Your task to perform on an android device: create a new album in the google photos Image 0: 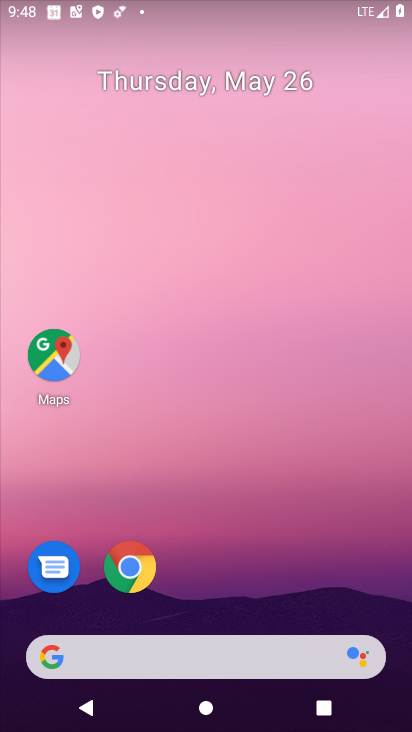
Step 0: drag from (164, 717) to (330, 0)
Your task to perform on an android device: create a new album in the google photos Image 1: 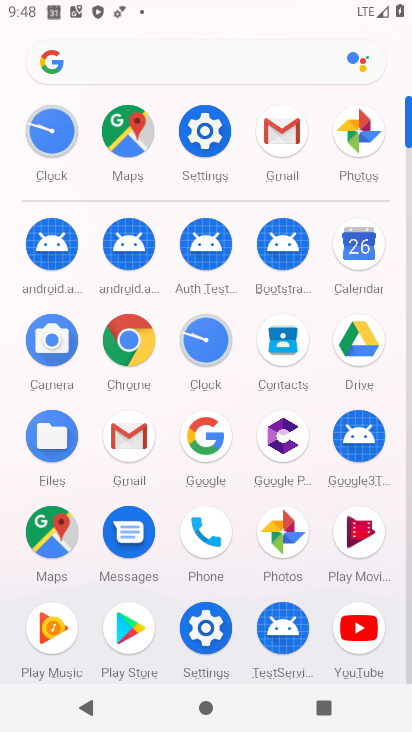
Step 1: click (375, 127)
Your task to perform on an android device: create a new album in the google photos Image 2: 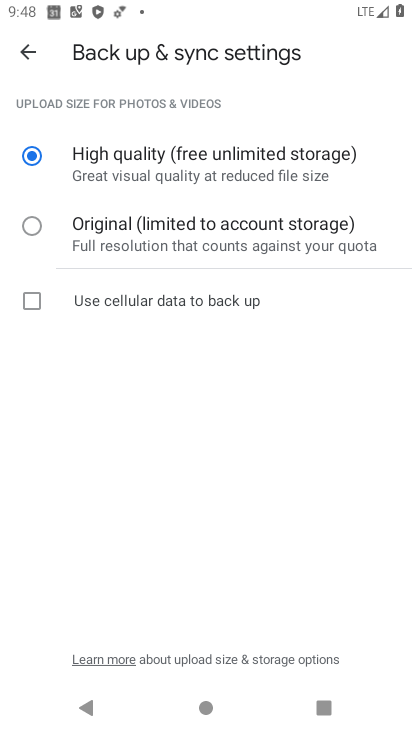
Step 2: click (37, 52)
Your task to perform on an android device: create a new album in the google photos Image 3: 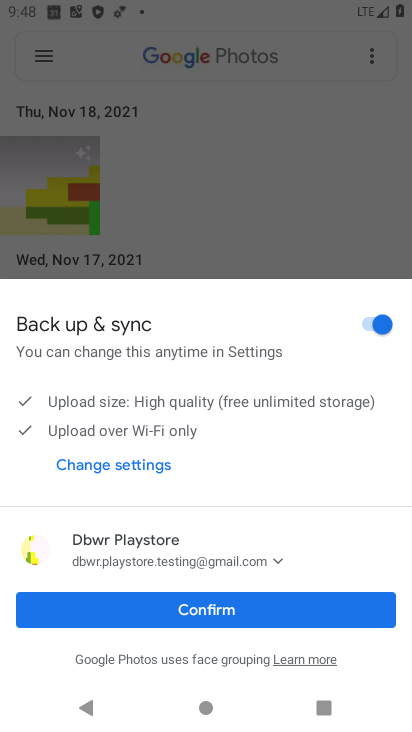
Step 3: click (286, 619)
Your task to perform on an android device: create a new album in the google photos Image 4: 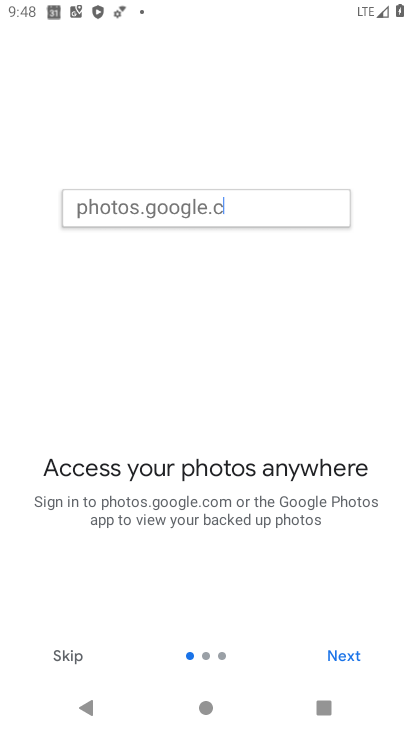
Step 4: click (342, 655)
Your task to perform on an android device: create a new album in the google photos Image 5: 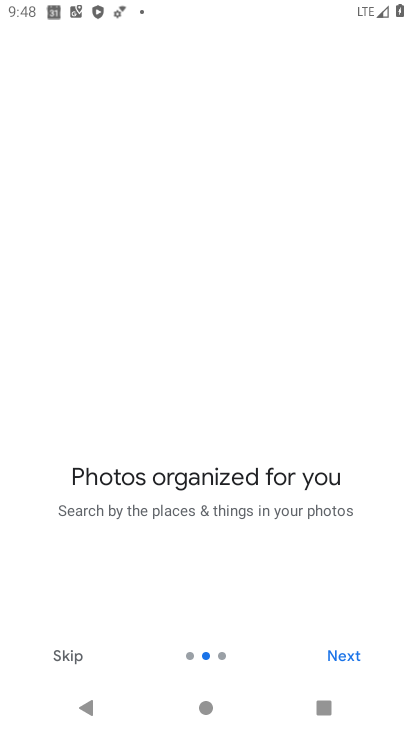
Step 5: click (339, 653)
Your task to perform on an android device: create a new album in the google photos Image 6: 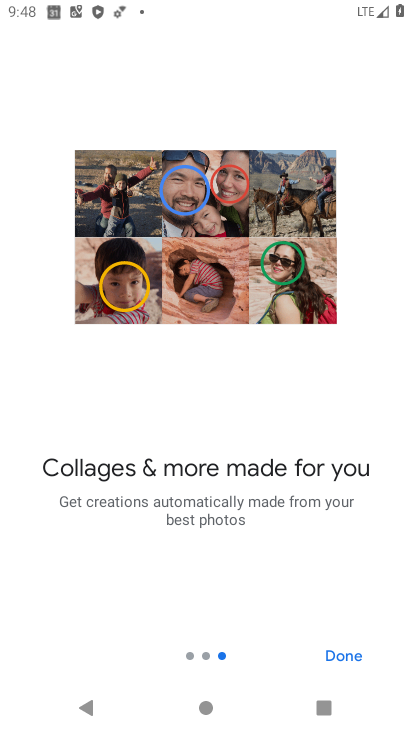
Step 6: click (339, 653)
Your task to perform on an android device: create a new album in the google photos Image 7: 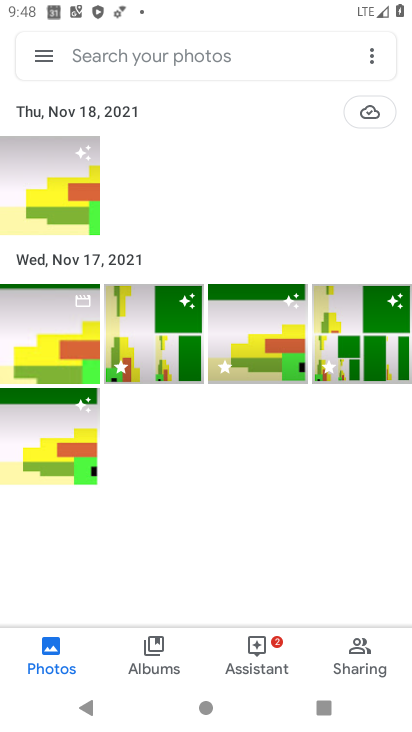
Step 7: click (73, 307)
Your task to perform on an android device: create a new album in the google photos Image 8: 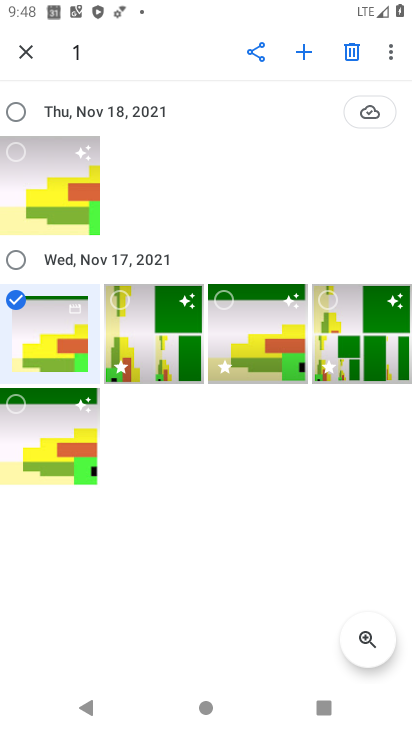
Step 8: click (307, 50)
Your task to perform on an android device: create a new album in the google photos Image 9: 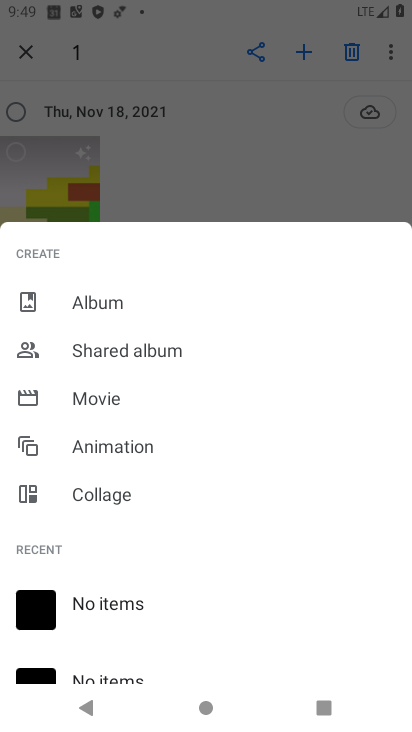
Step 9: click (116, 305)
Your task to perform on an android device: create a new album in the google photos Image 10: 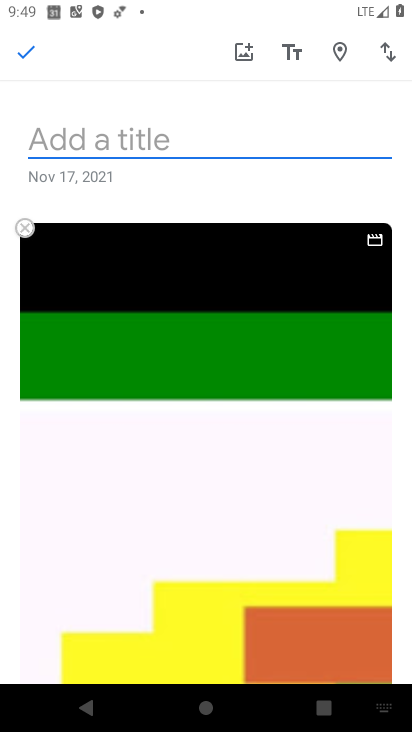
Step 10: type "hgfg"
Your task to perform on an android device: create a new album in the google photos Image 11: 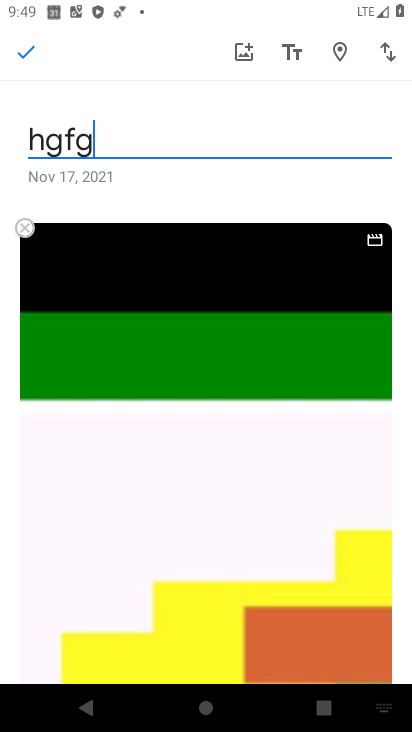
Step 11: click (37, 49)
Your task to perform on an android device: create a new album in the google photos Image 12: 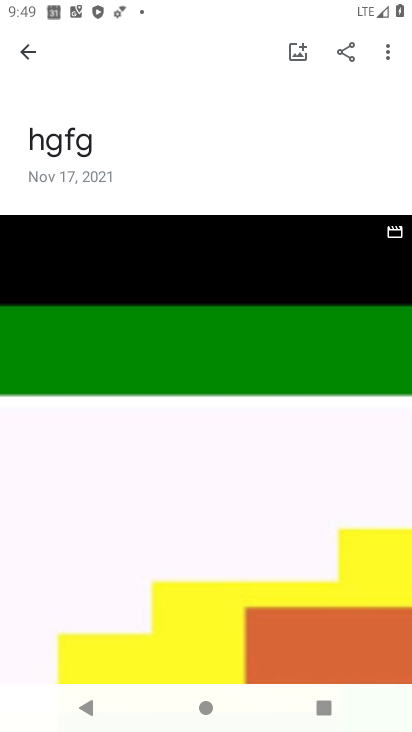
Step 12: task complete